Your task to perform on an android device: stop showing notifications on the lock screen Image 0: 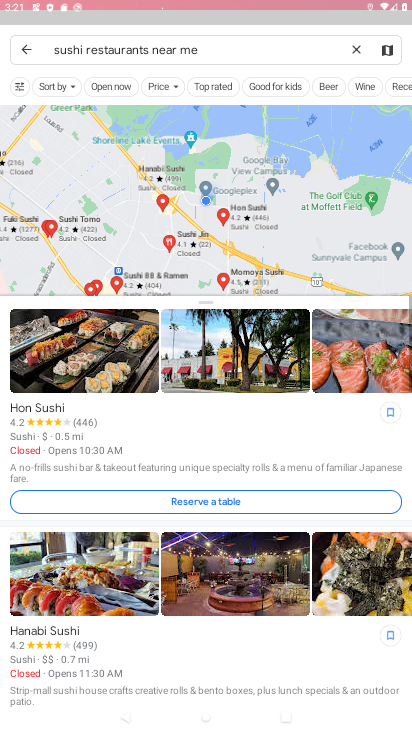
Step 0: drag from (280, 269) to (291, 162)
Your task to perform on an android device: stop showing notifications on the lock screen Image 1: 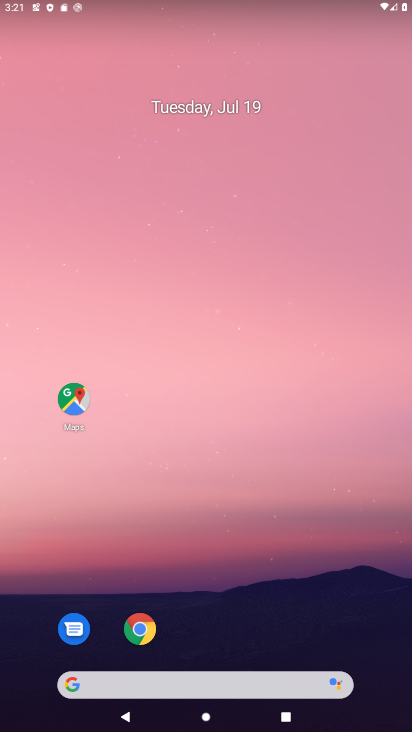
Step 1: drag from (192, 618) to (231, 238)
Your task to perform on an android device: stop showing notifications on the lock screen Image 2: 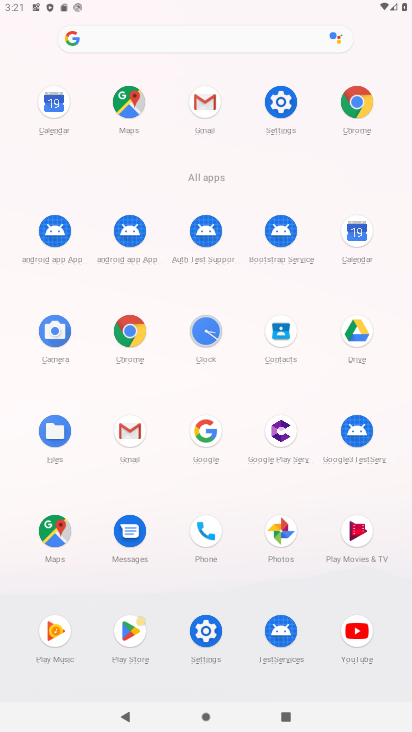
Step 2: click (282, 105)
Your task to perform on an android device: stop showing notifications on the lock screen Image 3: 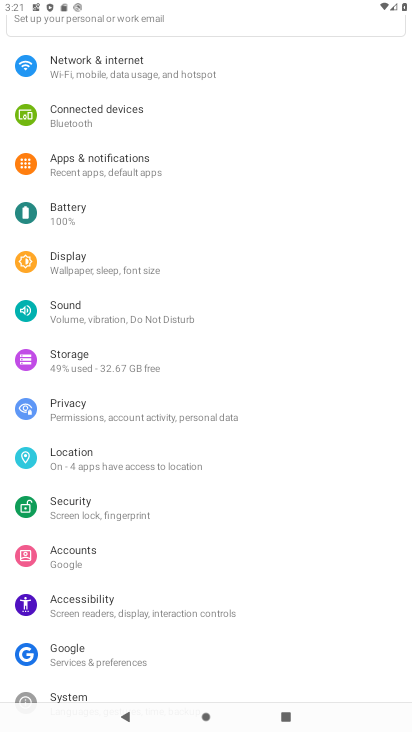
Step 3: click (80, 420)
Your task to perform on an android device: stop showing notifications on the lock screen Image 4: 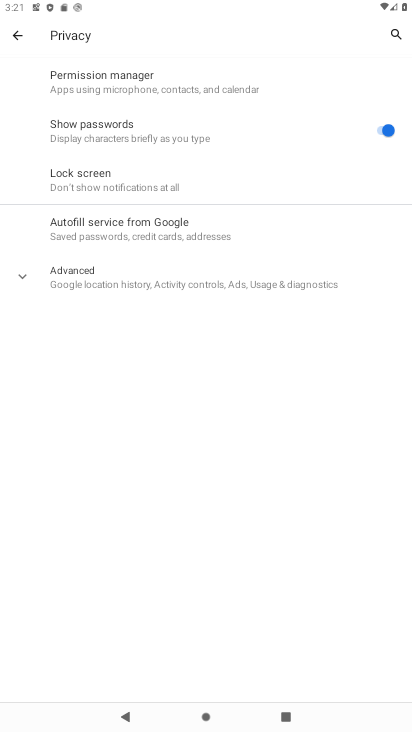
Step 4: click (86, 278)
Your task to perform on an android device: stop showing notifications on the lock screen Image 5: 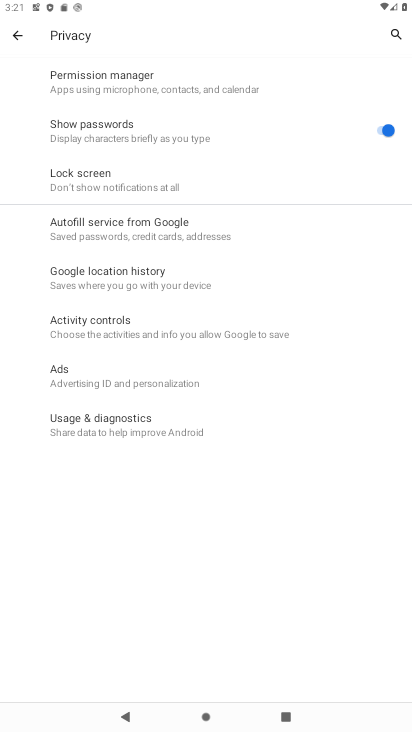
Step 5: click (85, 176)
Your task to perform on an android device: stop showing notifications on the lock screen Image 6: 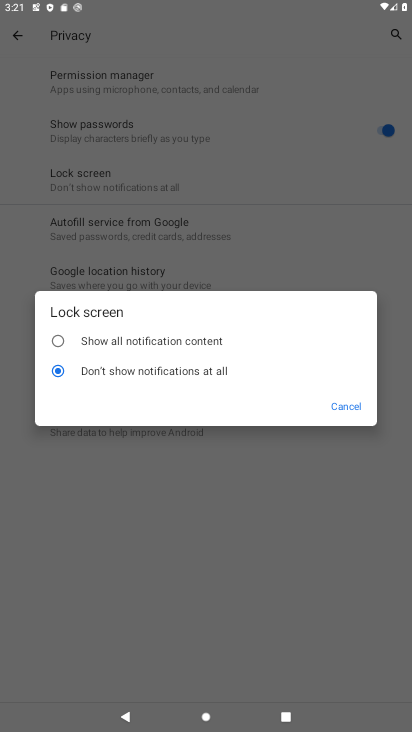
Step 6: click (354, 409)
Your task to perform on an android device: stop showing notifications on the lock screen Image 7: 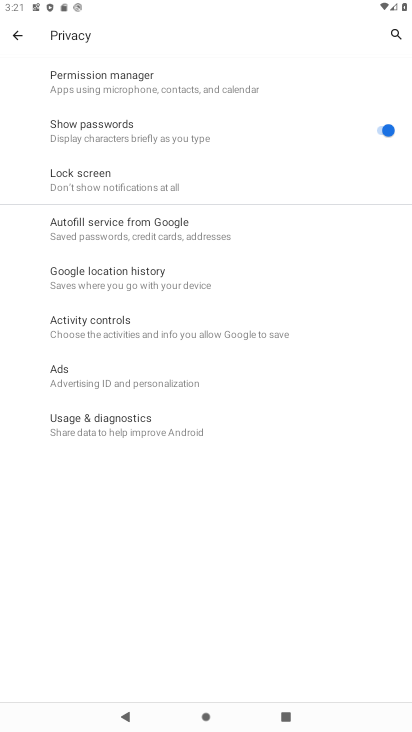
Step 7: task complete